Your task to perform on an android device: See recent photos Image 0: 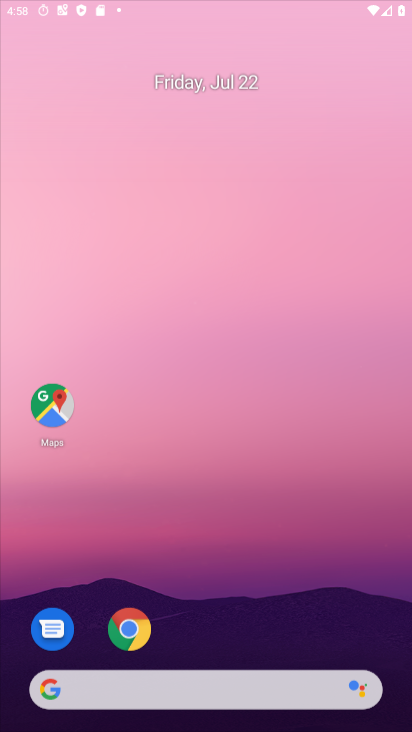
Step 0: drag from (298, 95) to (293, 47)
Your task to perform on an android device: See recent photos Image 1: 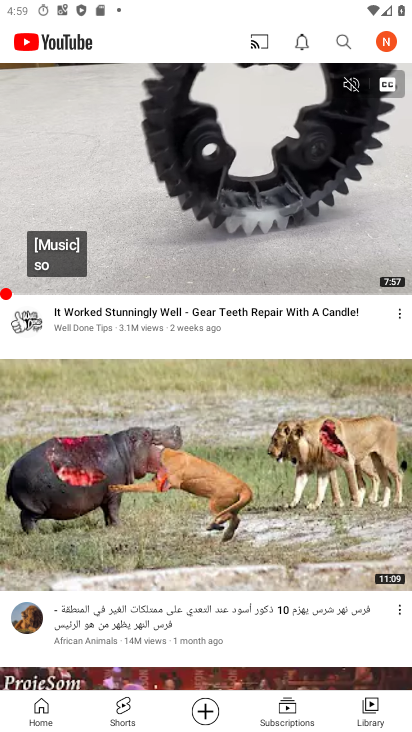
Step 1: press home button
Your task to perform on an android device: See recent photos Image 2: 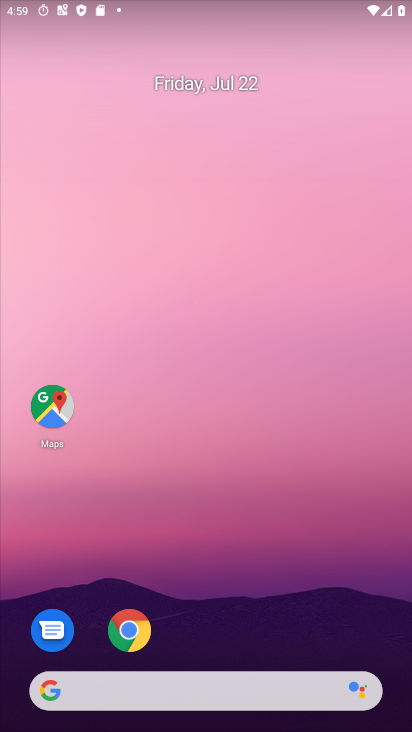
Step 2: drag from (153, 706) to (117, 2)
Your task to perform on an android device: See recent photos Image 3: 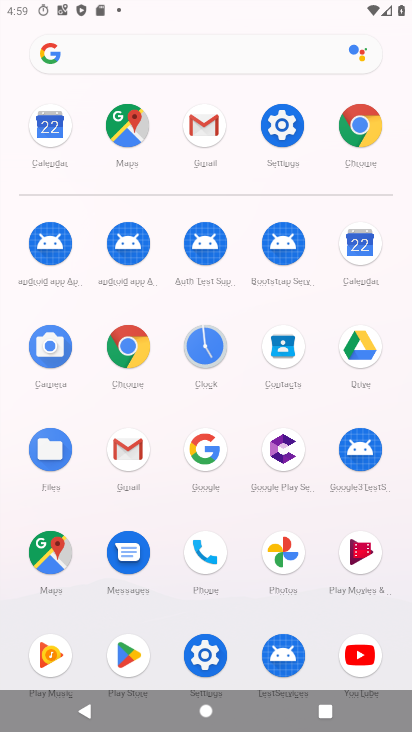
Step 3: click (287, 552)
Your task to perform on an android device: See recent photos Image 4: 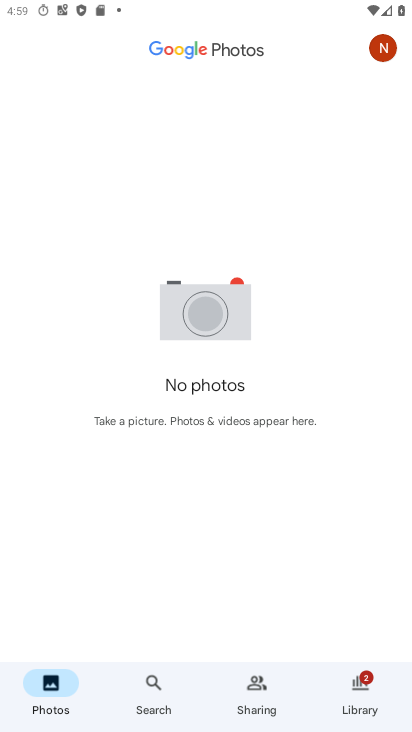
Step 4: task complete